Your task to perform on an android device: turn on showing notifications on the lock screen Image 0: 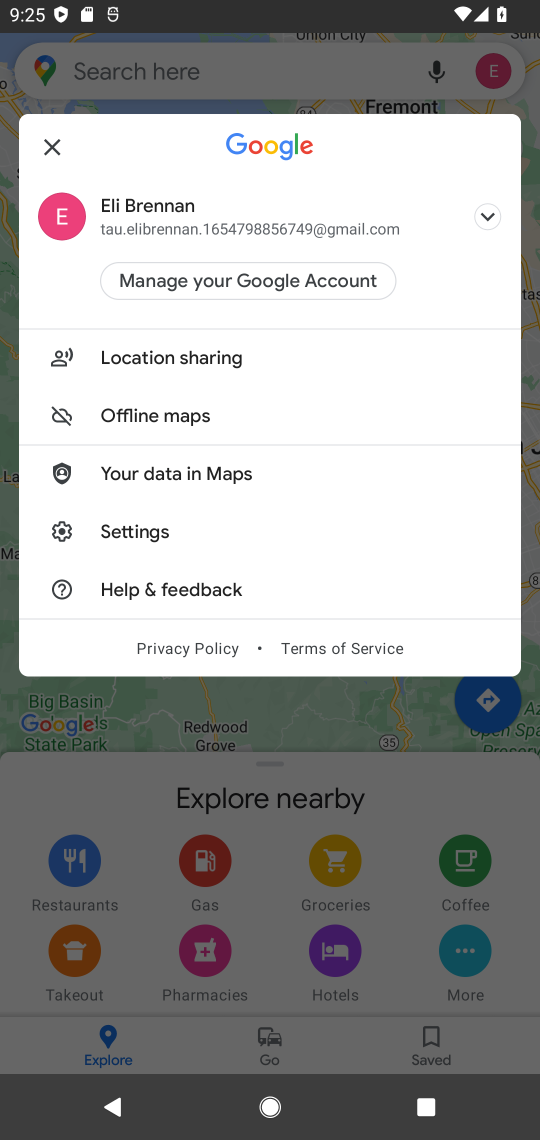
Step 0: press home button
Your task to perform on an android device: turn on showing notifications on the lock screen Image 1: 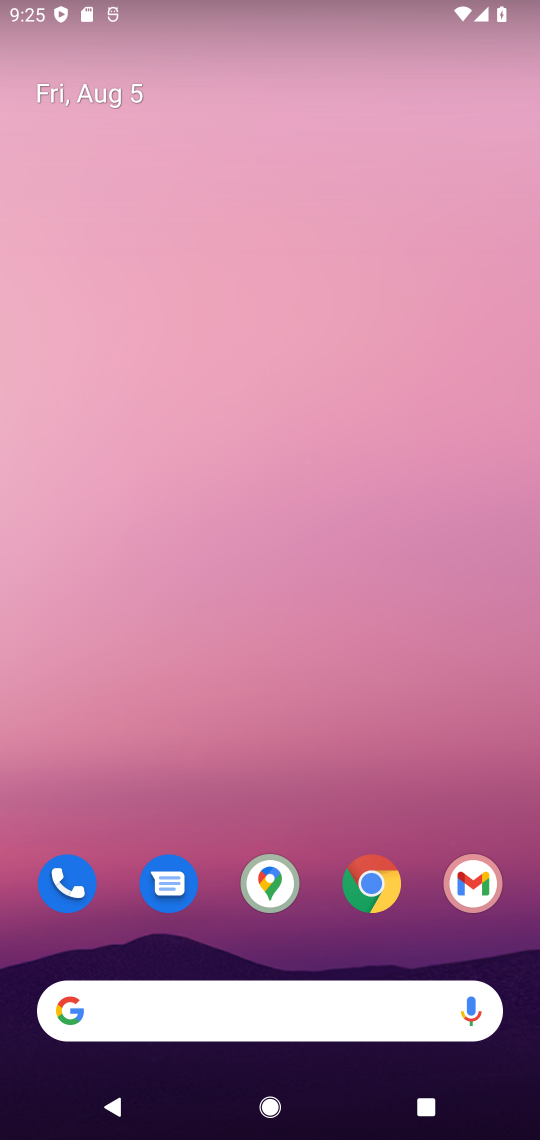
Step 1: drag from (242, 957) to (420, 6)
Your task to perform on an android device: turn on showing notifications on the lock screen Image 2: 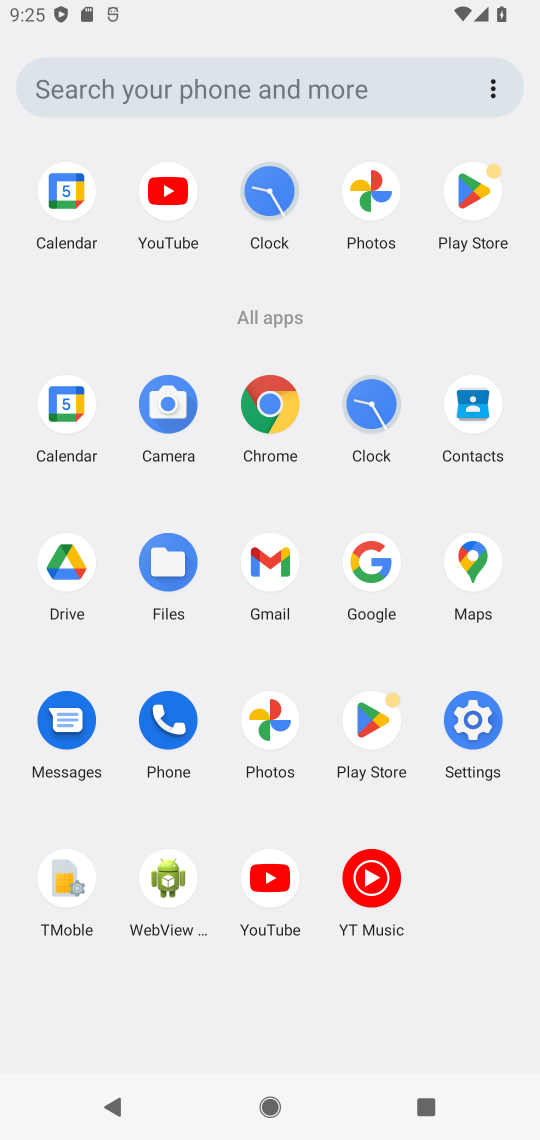
Step 2: click (484, 722)
Your task to perform on an android device: turn on showing notifications on the lock screen Image 3: 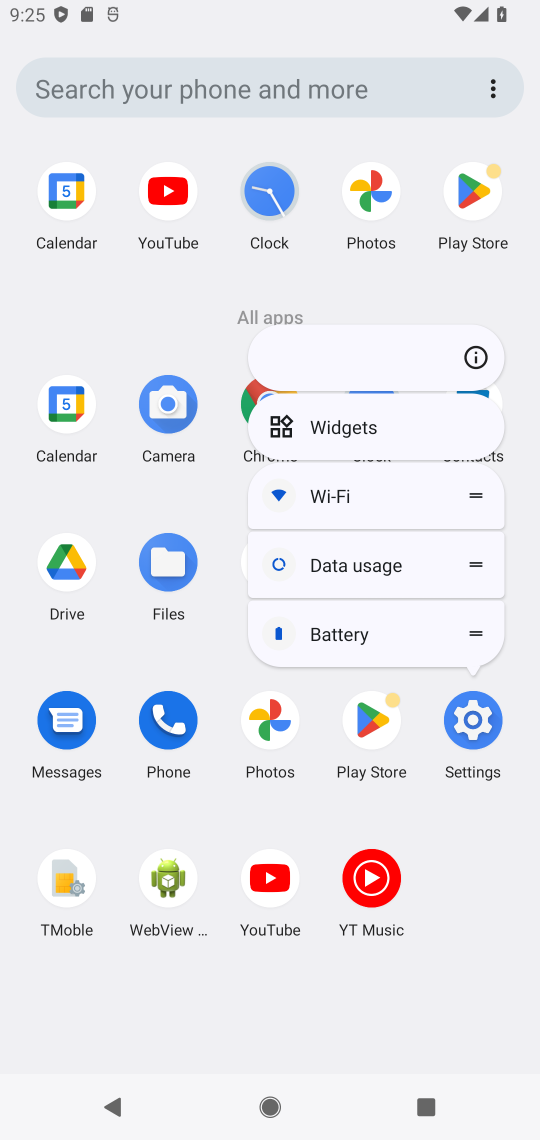
Step 3: click (476, 719)
Your task to perform on an android device: turn on showing notifications on the lock screen Image 4: 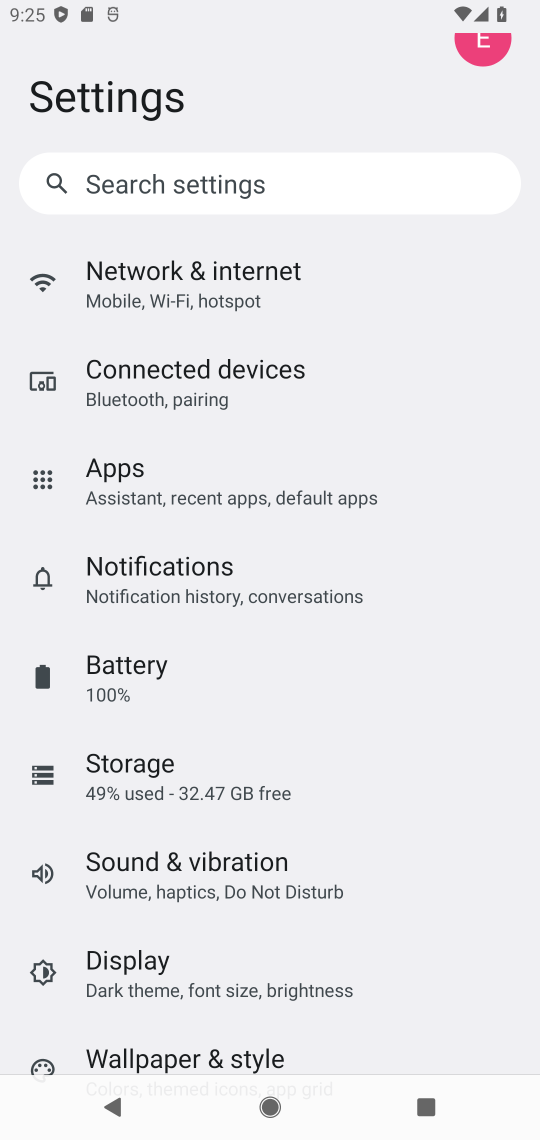
Step 4: click (195, 578)
Your task to perform on an android device: turn on showing notifications on the lock screen Image 5: 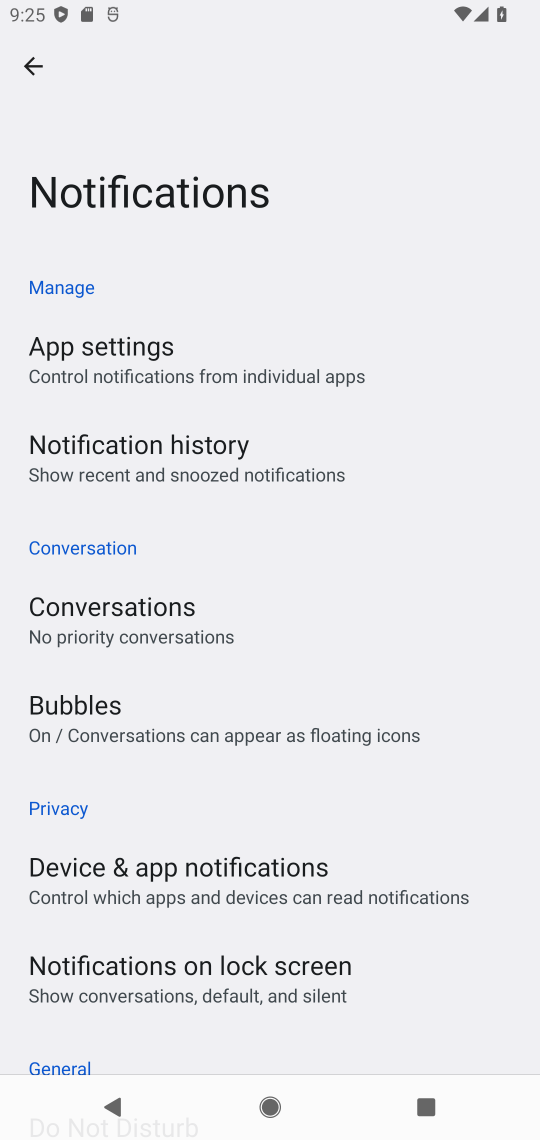
Step 5: click (211, 977)
Your task to perform on an android device: turn on showing notifications on the lock screen Image 6: 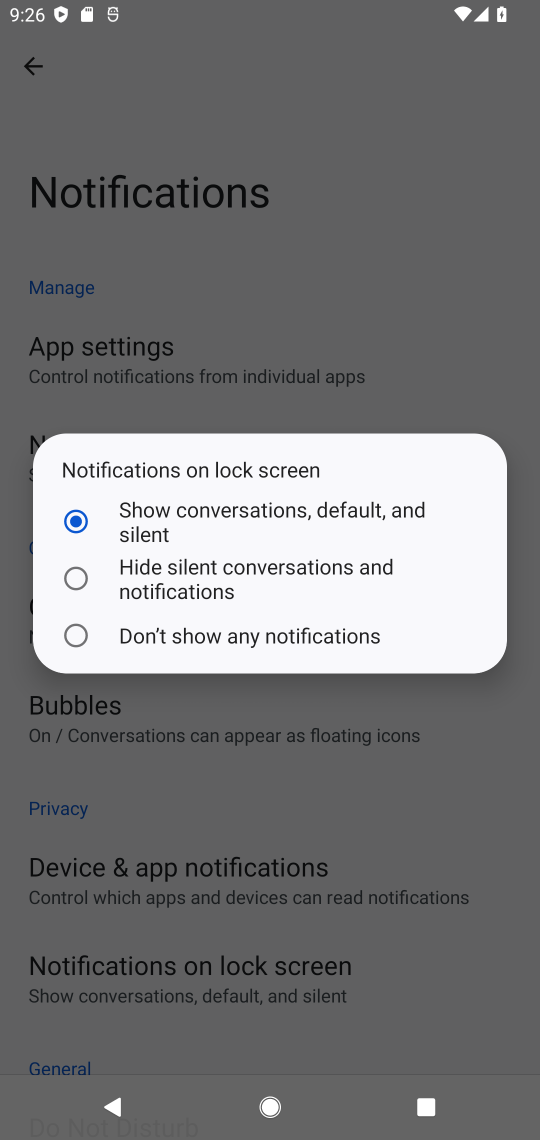
Step 6: task complete